Your task to perform on an android device: Show me recent news Image 0: 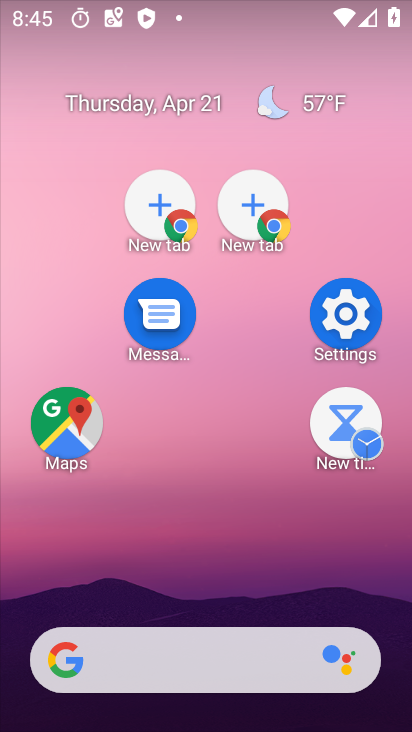
Step 0: click (411, 434)
Your task to perform on an android device: Show me recent news Image 1: 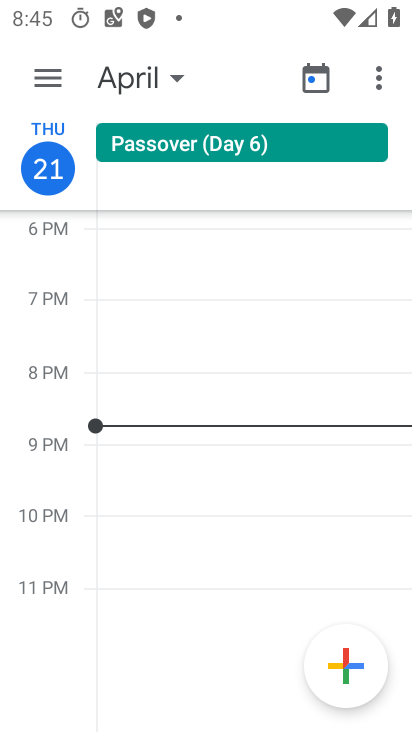
Step 1: press home button
Your task to perform on an android device: Show me recent news Image 2: 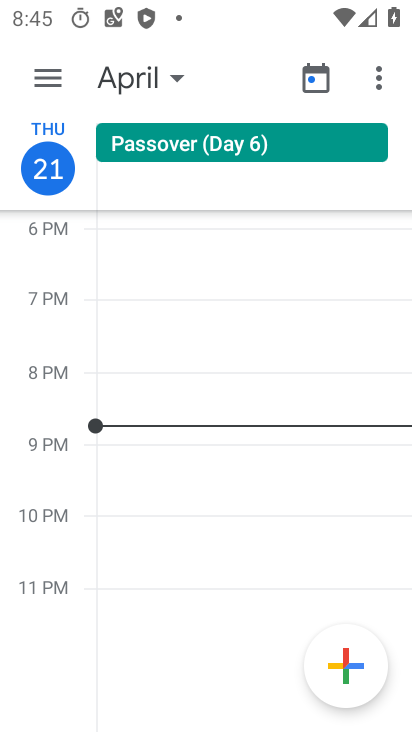
Step 2: press home button
Your task to perform on an android device: Show me recent news Image 3: 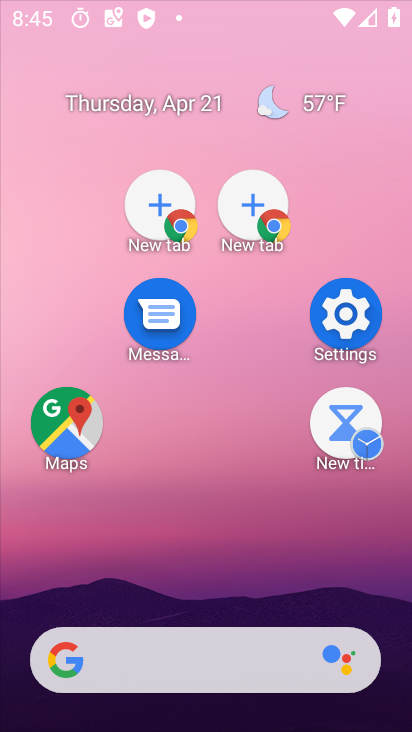
Step 3: press home button
Your task to perform on an android device: Show me recent news Image 4: 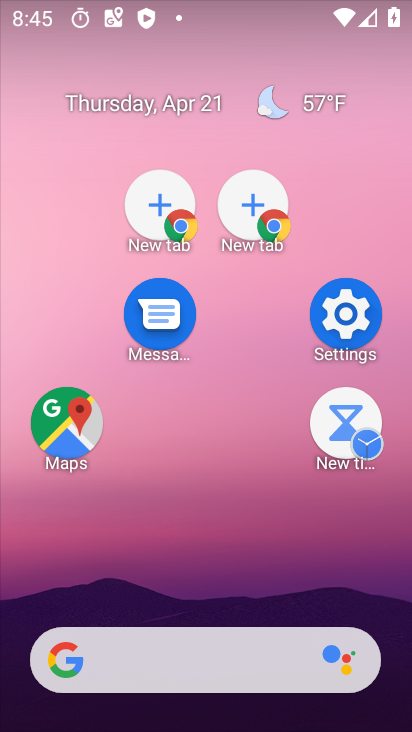
Step 4: press home button
Your task to perform on an android device: Show me recent news Image 5: 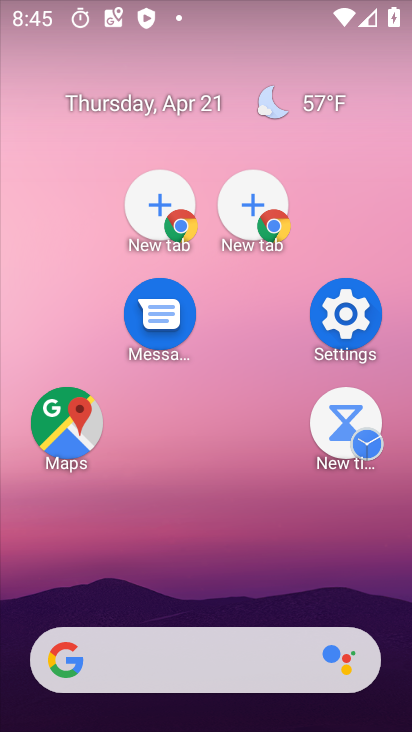
Step 5: drag from (189, 199) to (169, 44)
Your task to perform on an android device: Show me recent news Image 6: 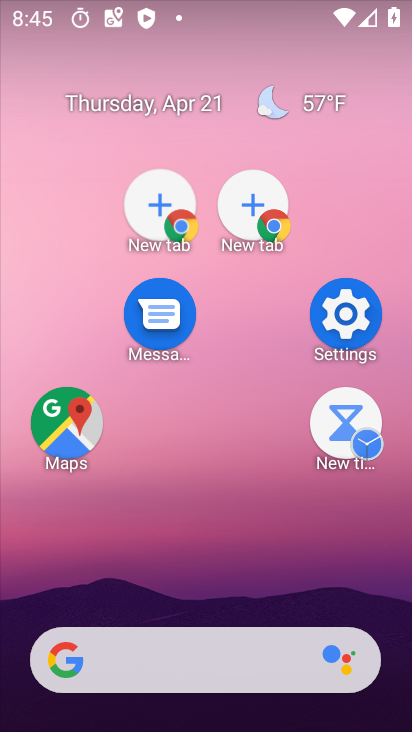
Step 6: drag from (330, 515) to (173, 46)
Your task to perform on an android device: Show me recent news Image 7: 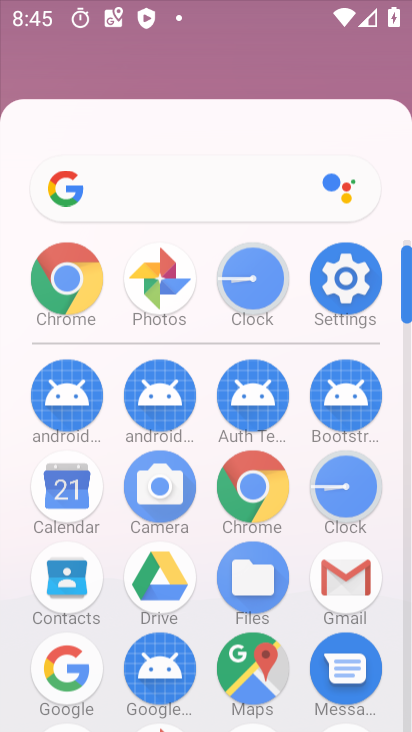
Step 7: drag from (180, 63) to (205, 1)
Your task to perform on an android device: Show me recent news Image 8: 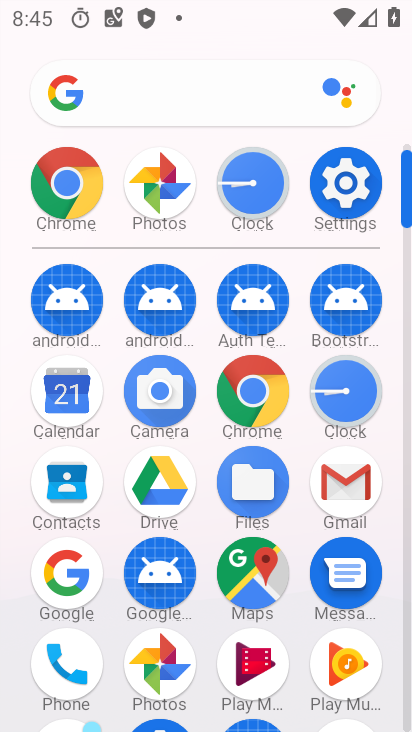
Step 8: drag from (313, 496) to (180, 8)
Your task to perform on an android device: Show me recent news Image 9: 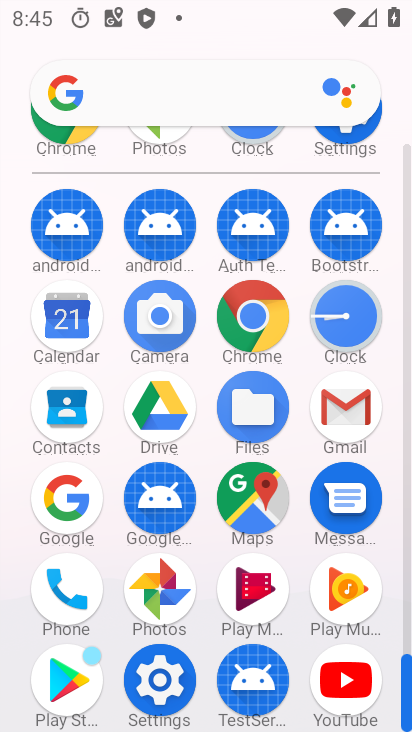
Step 9: click (162, 581)
Your task to perform on an android device: Show me recent news Image 10: 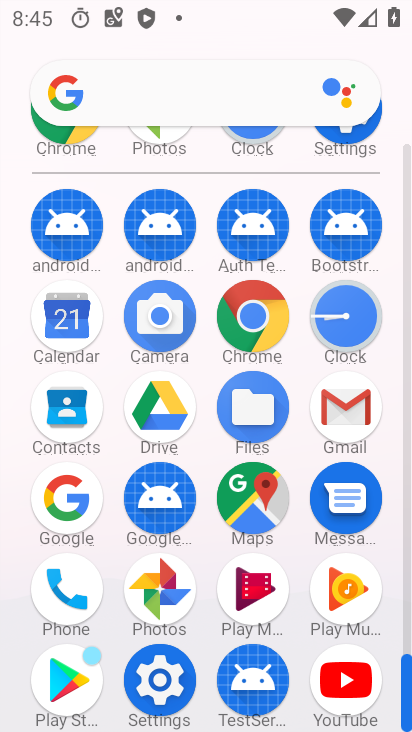
Step 10: click (162, 582)
Your task to perform on an android device: Show me recent news Image 11: 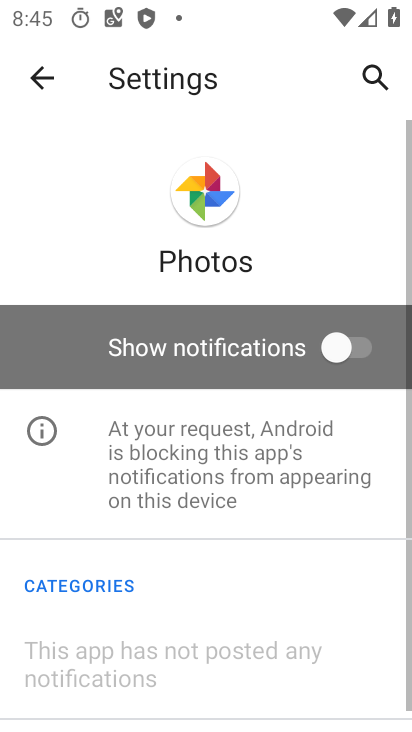
Step 11: click (159, 582)
Your task to perform on an android device: Show me recent news Image 12: 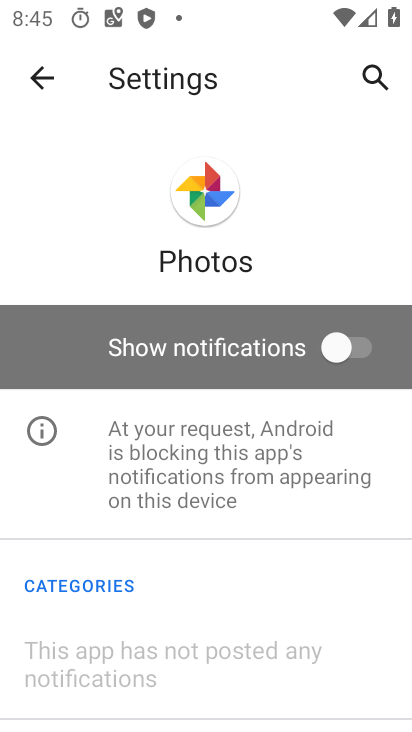
Step 12: click (27, 76)
Your task to perform on an android device: Show me recent news Image 13: 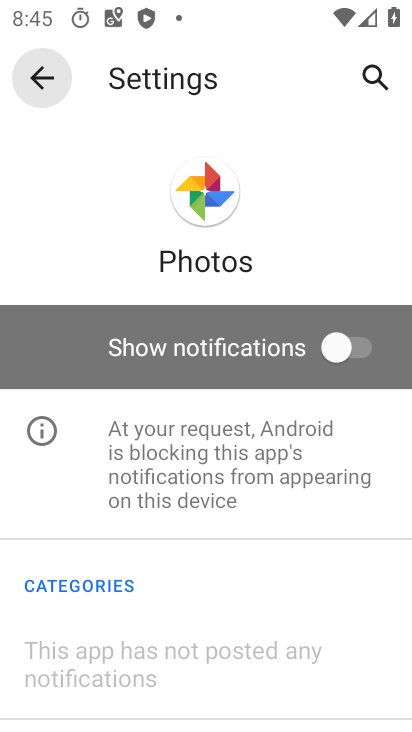
Step 13: click (35, 67)
Your task to perform on an android device: Show me recent news Image 14: 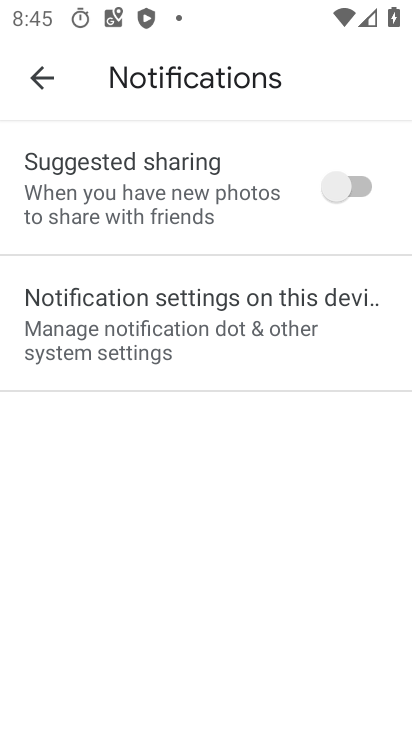
Step 14: click (35, 67)
Your task to perform on an android device: Show me recent news Image 15: 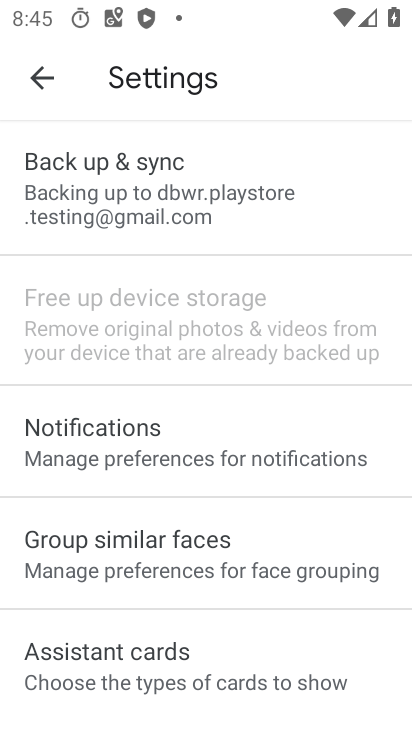
Step 15: drag from (242, 630) to (220, 24)
Your task to perform on an android device: Show me recent news Image 16: 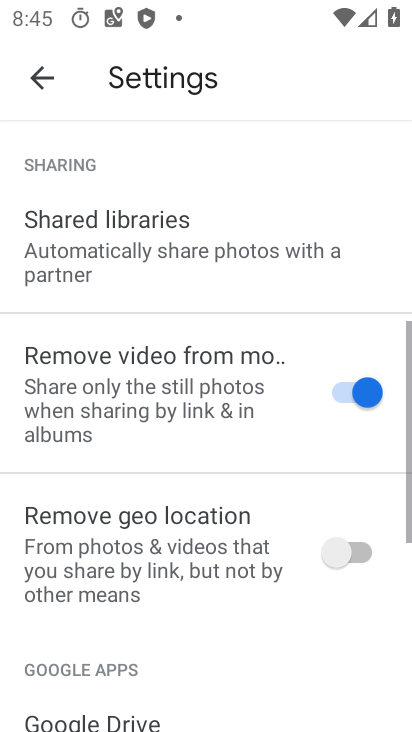
Step 16: drag from (199, 153) to (198, 28)
Your task to perform on an android device: Show me recent news Image 17: 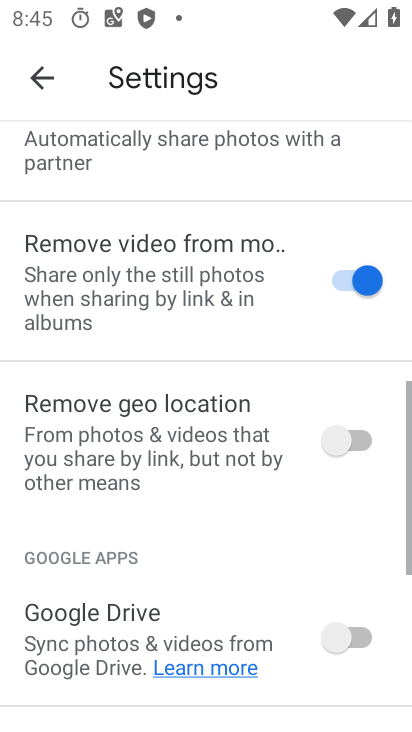
Step 17: drag from (306, 224) to (302, 51)
Your task to perform on an android device: Show me recent news Image 18: 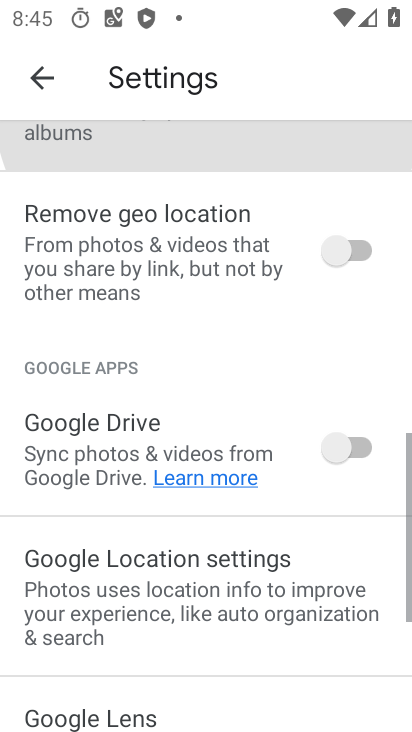
Step 18: drag from (256, 279) to (238, 60)
Your task to perform on an android device: Show me recent news Image 19: 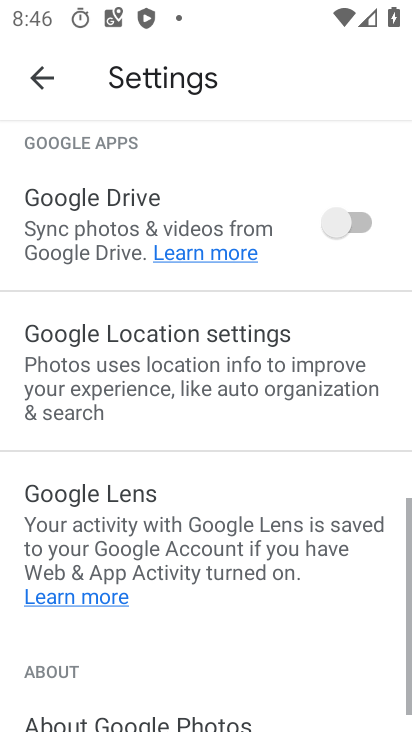
Step 19: drag from (172, 161) to (172, 10)
Your task to perform on an android device: Show me recent news Image 20: 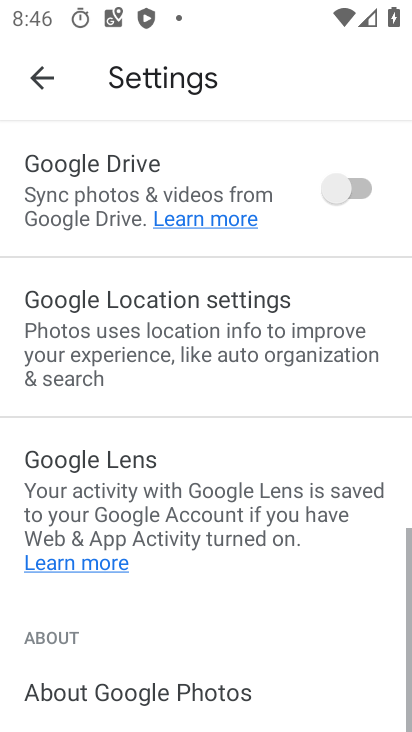
Step 20: drag from (217, 572) to (221, 37)
Your task to perform on an android device: Show me recent news Image 21: 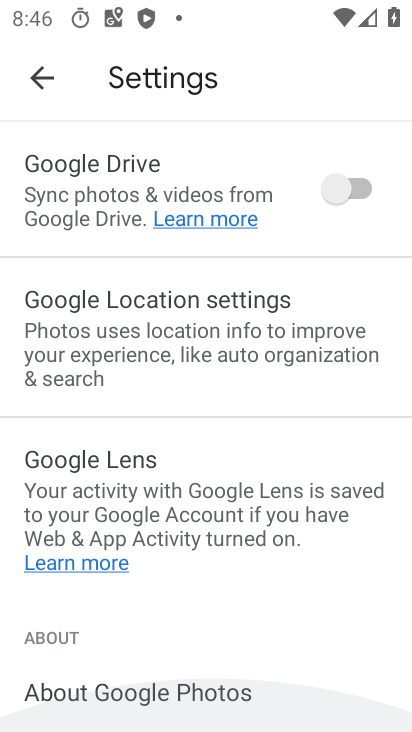
Step 21: drag from (255, 477) to (260, 76)
Your task to perform on an android device: Show me recent news Image 22: 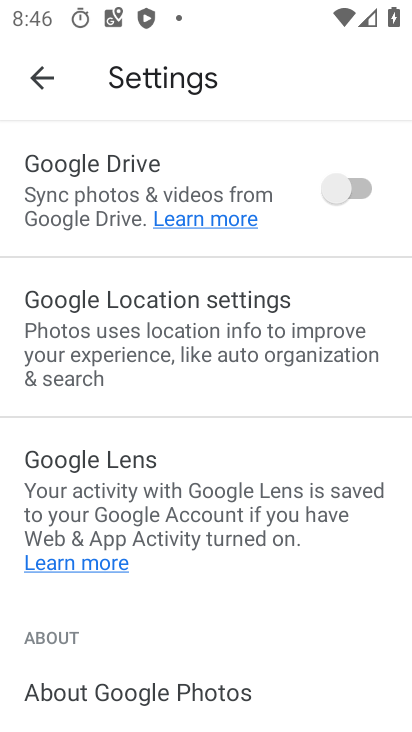
Step 22: drag from (163, 288) to (168, 47)
Your task to perform on an android device: Show me recent news Image 23: 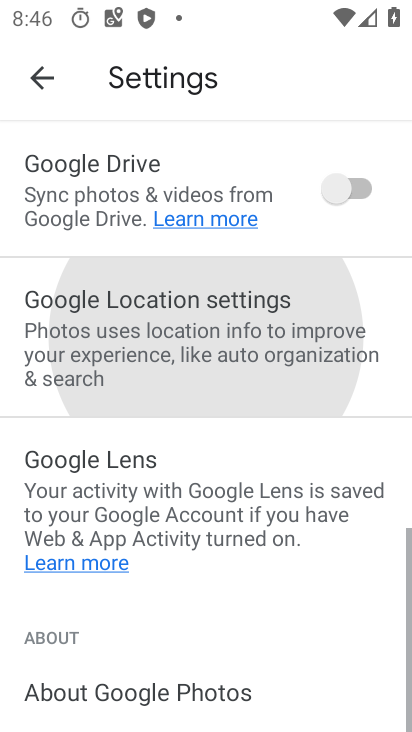
Step 23: drag from (205, 579) to (204, 96)
Your task to perform on an android device: Show me recent news Image 24: 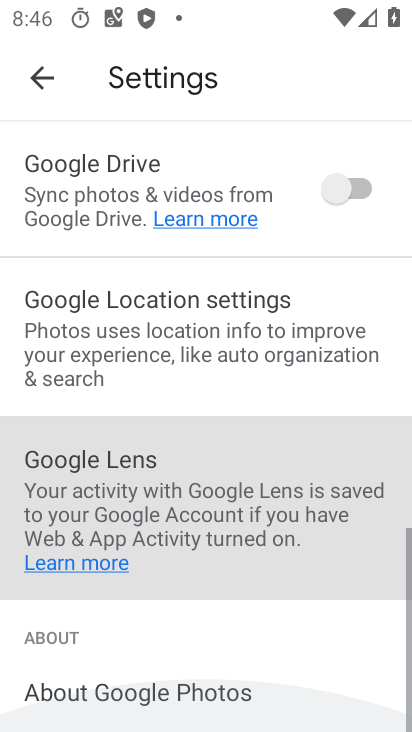
Step 24: drag from (217, 323) to (202, 87)
Your task to perform on an android device: Show me recent news Image 25: 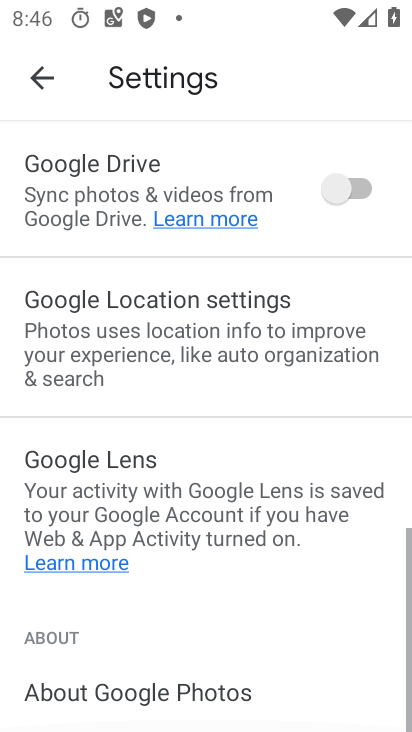
Step 25: drag from (179, 557) to (157, 189)
Your task to perform on an android device: Show me recent news Image 26: 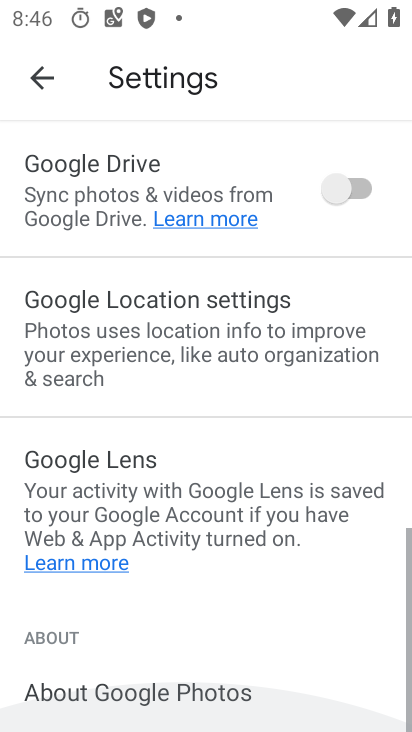
Step 26: drag from (174, 328) to (148, 118)
Your task to perform on an android device: Show me recent news Image 27: 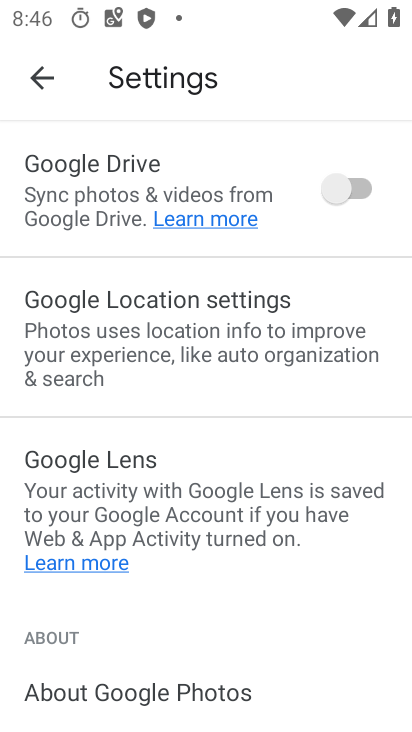
Step 27: click (35, 75)
Your task to perform on an android device: Show me recent news Image 28: 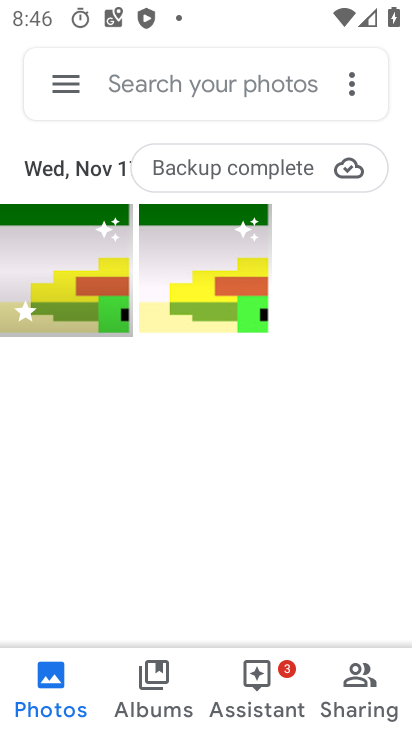
Step 28: task complete